Your task to perform on an android device: turn pop-ups off in chrome Image 0: 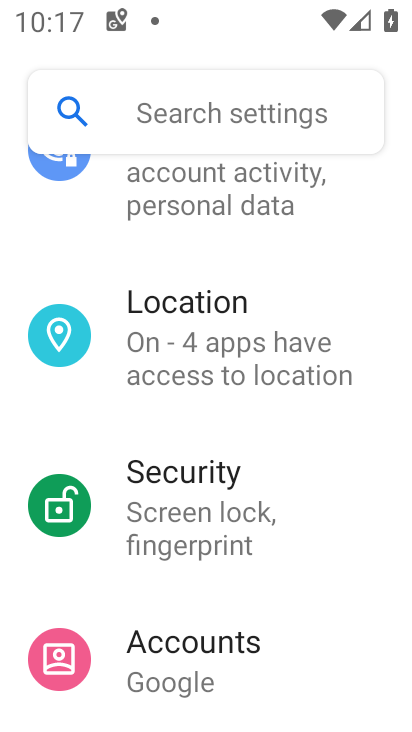
Step 0: drag from (225, 691) to (264, 320)
Your task to perform on an android device: turn pop-ups off in chrome Image 1: 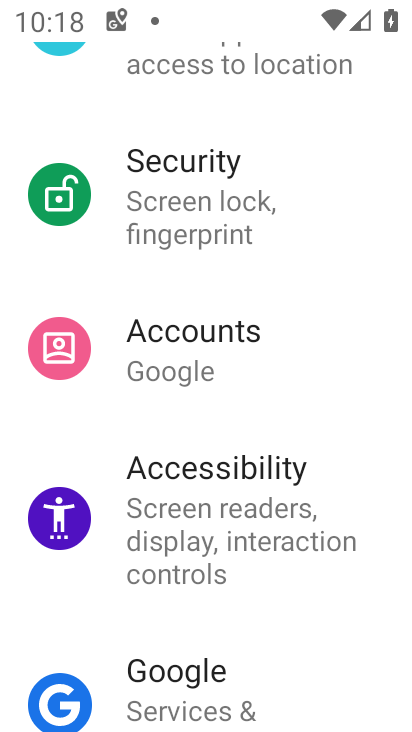
Step 1: press home button
Your task to perform on an android device: turn pop-ups off in chrome Image 2: 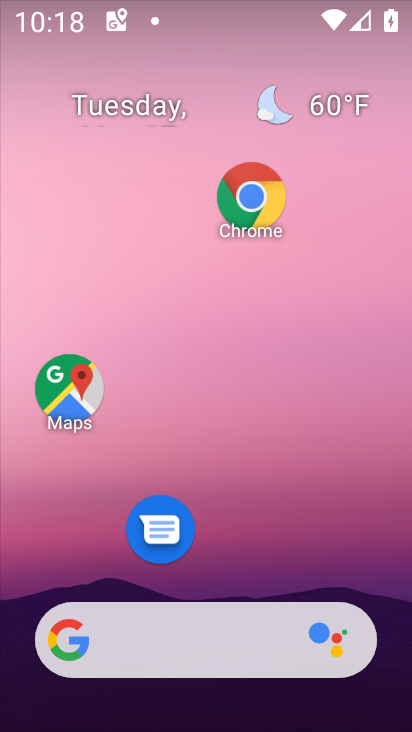
Step 2: click (265, 192)
Your task to perform on an android device: turn pop-ups off in chrome Image 3: 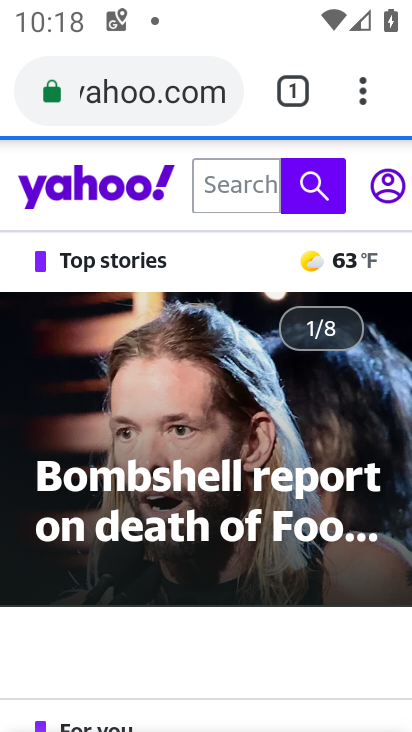
Step 3: click (356, 83)
Your task to perform on an android device: turn pop-ups off in chrome Image 4: 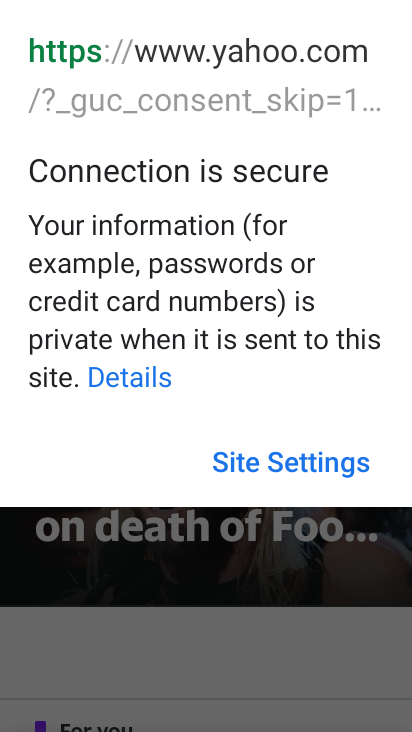
Step 4: click (262, 573)
Your task to perform on an android device: turn pop-ups off in chrome Image 5: 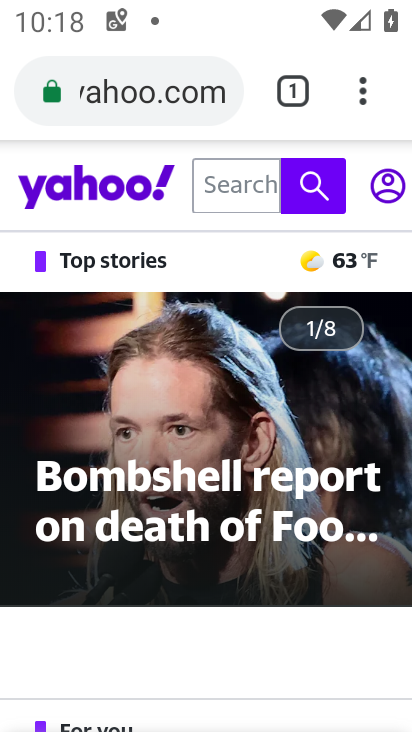
Step 5: click (289, 82)
Your task to perform on an android device: turn pop-ups off in chrome Image 6: 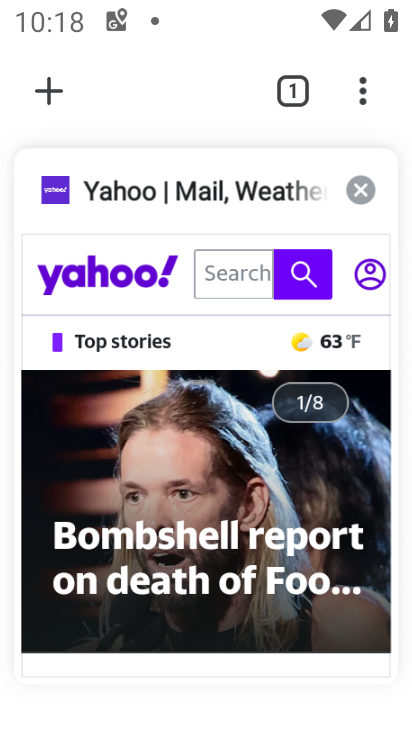
Step 6: click (288, 94)
Your task to perform on an android device: turn pop-ups off in chrome Image 7: 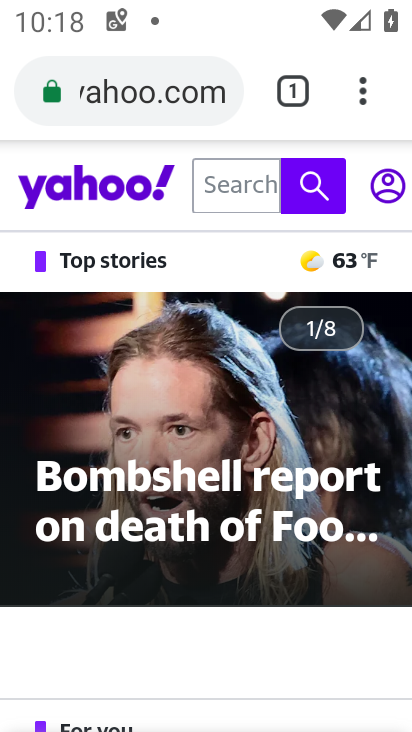
Step 7: click (293, 96)
Your task to perform on an android device: turn pop-ups off in chrome Image 8: 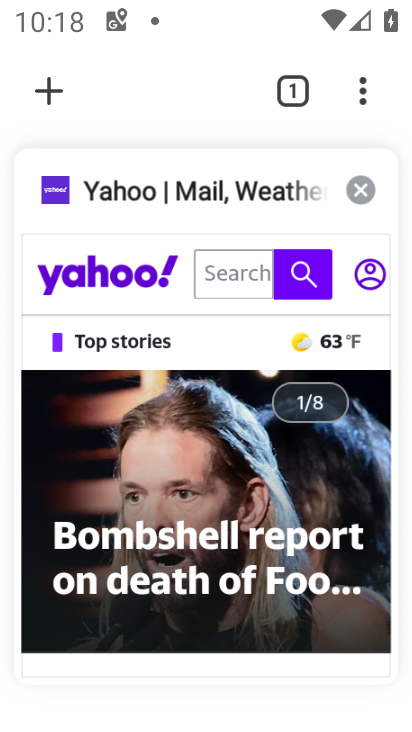
Step 8: click (359, 195)
Your task to perform on an android device: turn pop-ups off in chrome Image 9: 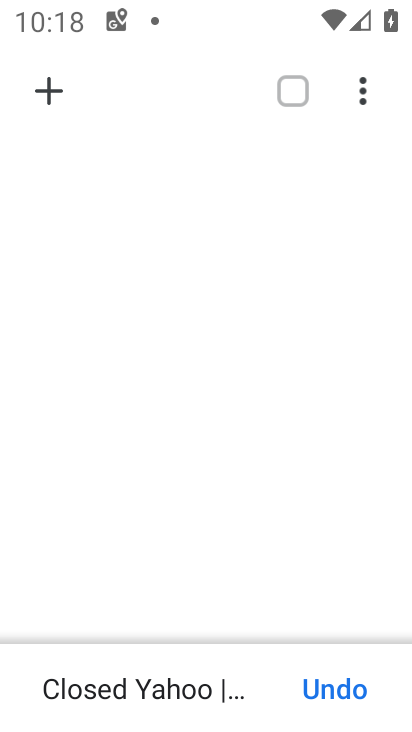
Step 9: click (47, 87)
Your task to perform on an android device: turn pop-ups off in chrome Image 10: 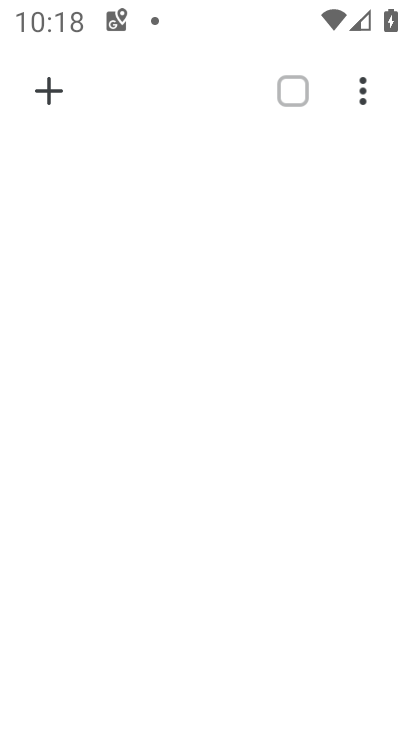
Step 10: click (48, 82)
Your task to perform on an android device: turn pop-ups off in chrome Image 11: 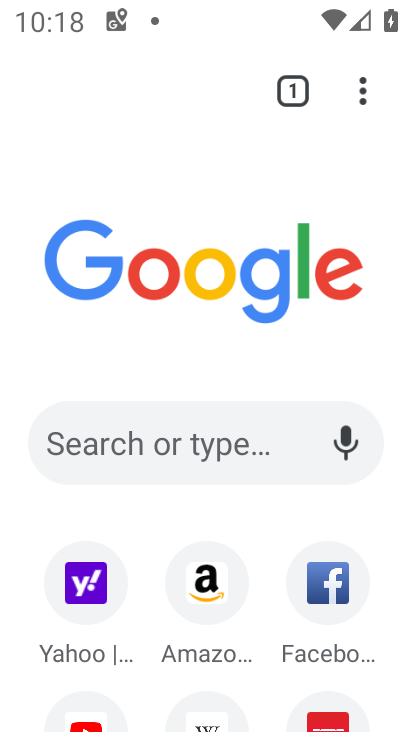
Step 11: click (369, 85)
Your task to perform on an android device: turn pop-ups off in chrome Image 12: 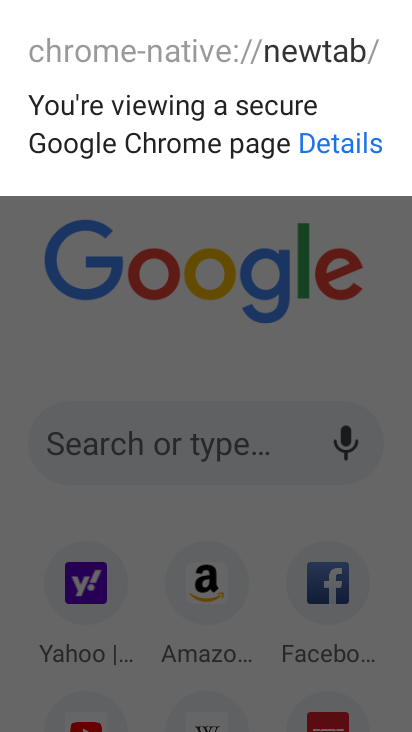
Step 12: click (226, 349)
Your task to perform on an android device: turn pop-ups off in chrome Image 13: 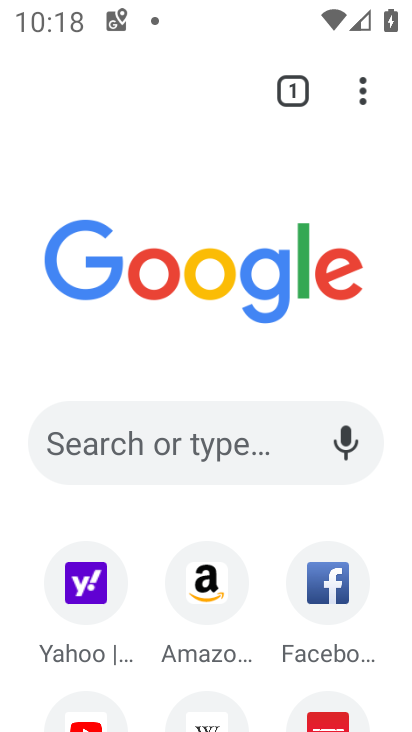
Step 13: click (363, 96)
Your task to perform on an android device: turn pop-ups off in chrome Image 14: 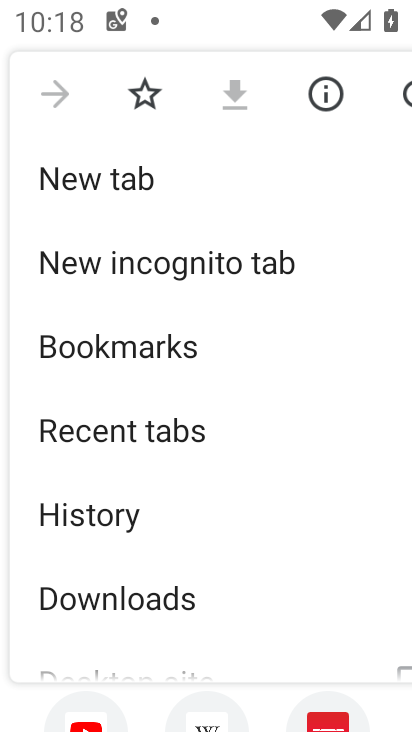
Step 14: drag from (196, 613) to (198, 256)
Your task to perform on an android device: turn pop-ups off in chrome Image 15: 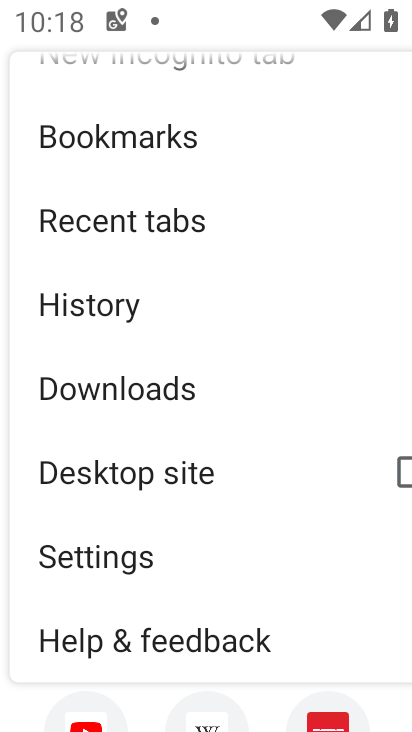
Step 15: click (108, 560)
Your task to perform on an android device: turn pop-ups off in chrome Image 16: 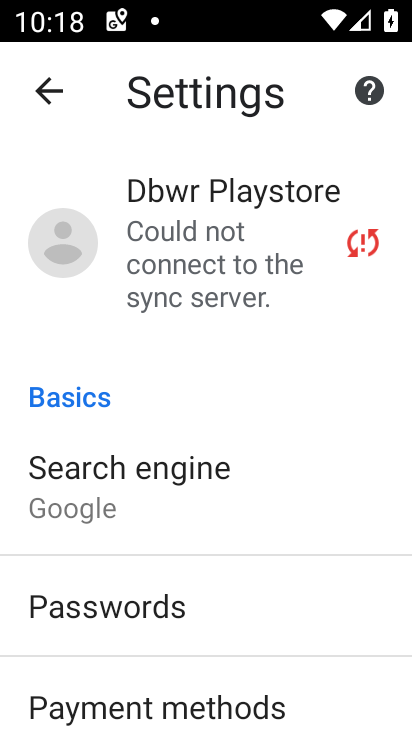
Step 16: drag from (123, 719) to (178, 268)
Your task to perform on an android device: turn pop-ups off in chrome Image 17: 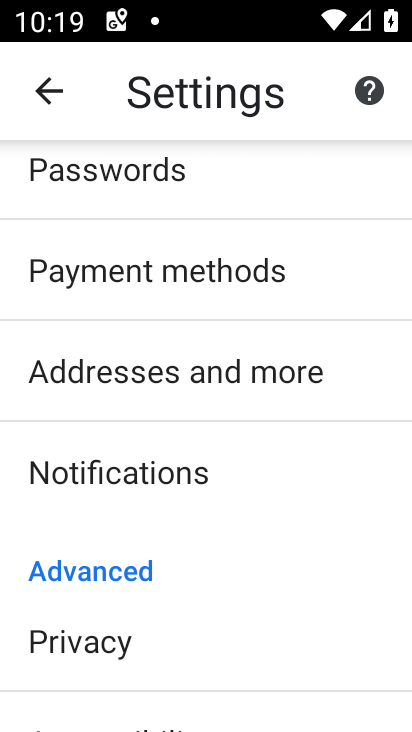
Step 17: drag from (172, 626) to (238, 184)
Your task to perform on an android device: turn pop-ups off in chrome Image 18: 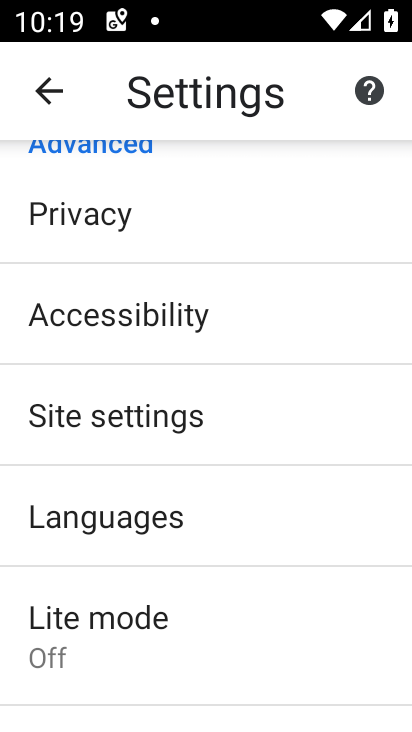
Step 18: drag from (150, 637) to (135, 247)
Your task to perform on an android device: turn pop-ups off in chrome Image 19: 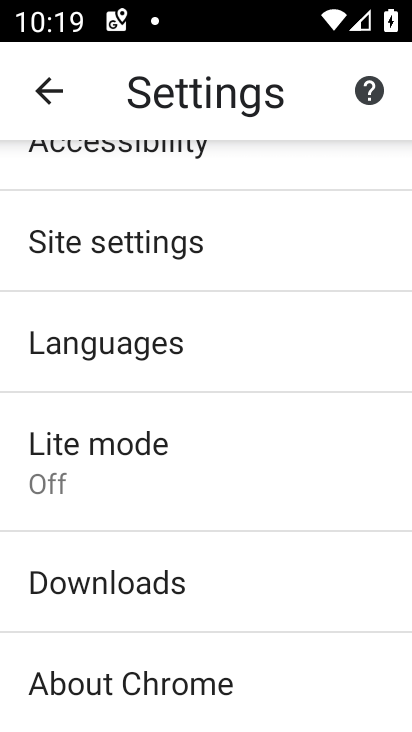
Step 19: click (94, 418)
Your task to perform on an android device: turn pop-ups off in chrome Image 20: 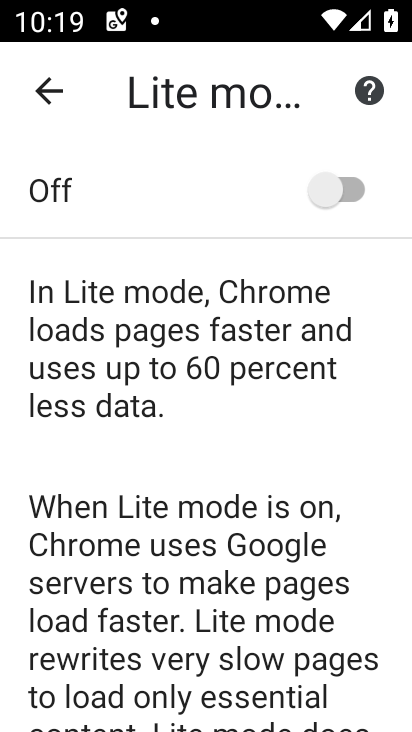
Step 20: click (45, 87)
Your task to perform on an android device: turn pop-ups off in chrome Image 21: 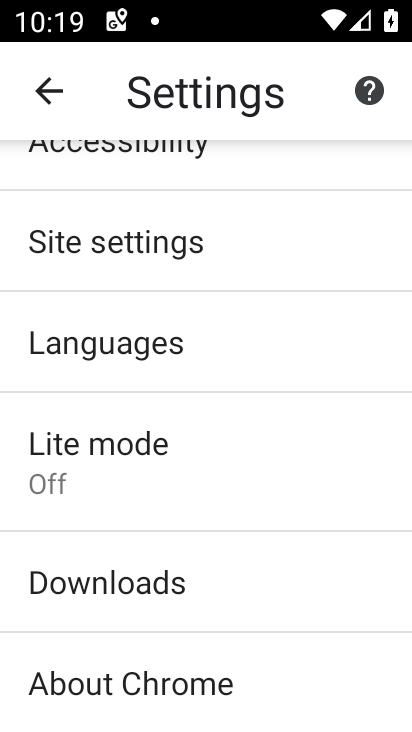
Step 21: click (130, 239)
Your task to perform on an android device: turn pop-ups off in chrome Image 22: 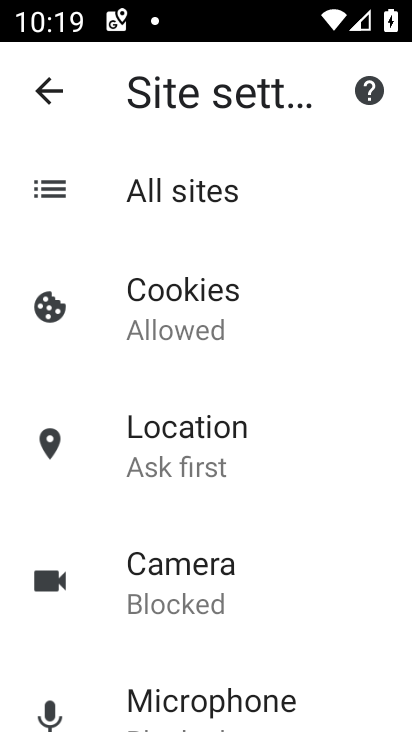
Step 22: click (279, 262)
Your task to perform on an android device: turn pop-ups off in chrome Image 23: 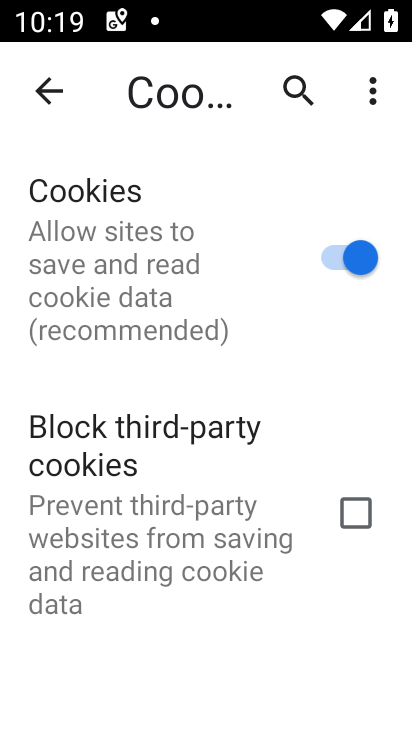
Step 23: drag from (201, 718) to (238, 307)
Your task to perform on an android device: turn pop-ups off in chrome Image 24: 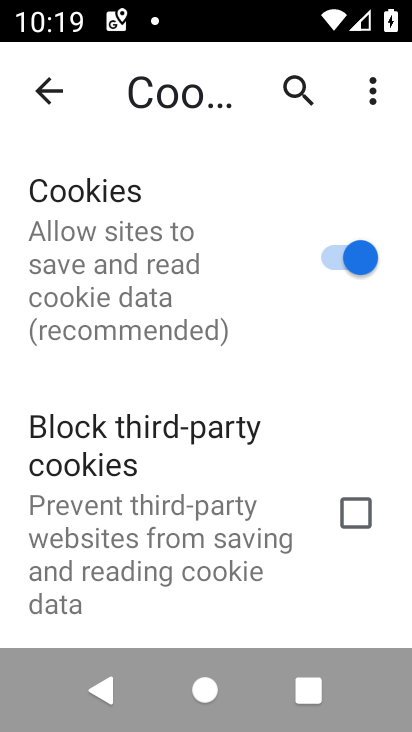
Step 24: click (38, 101)
Your task to perform on an android device: turn pop-ups off in chrome Image 25: 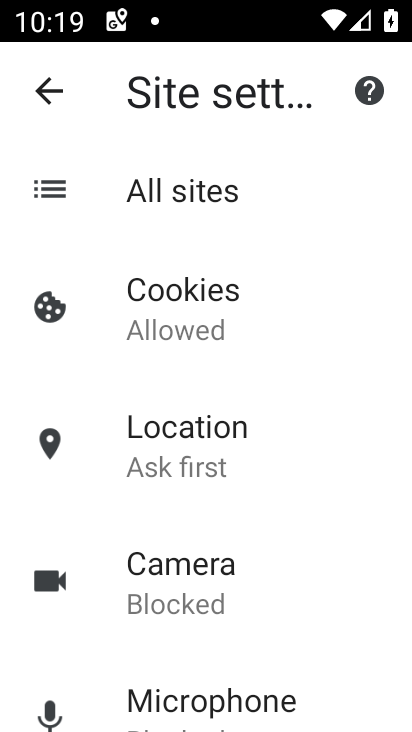
Step 25: drag from (211, 649) to (238, 200)
Your task to perform on an android device: turn pop-ups off in chrome Image 26: 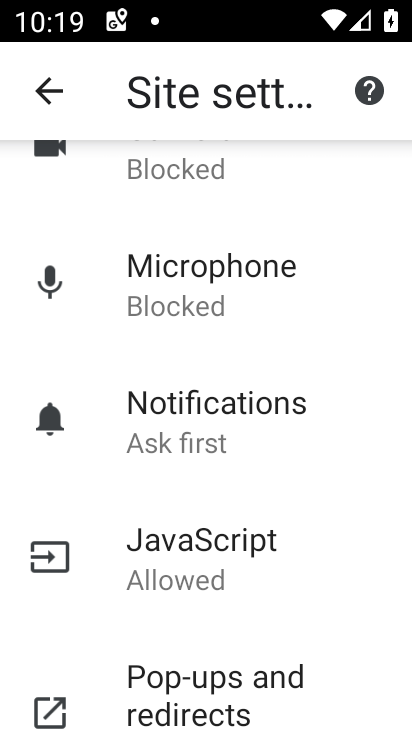
Step 26: click (219, 699)
Your task to perform on an android device: turn pop-ups off in chrome Image 27: 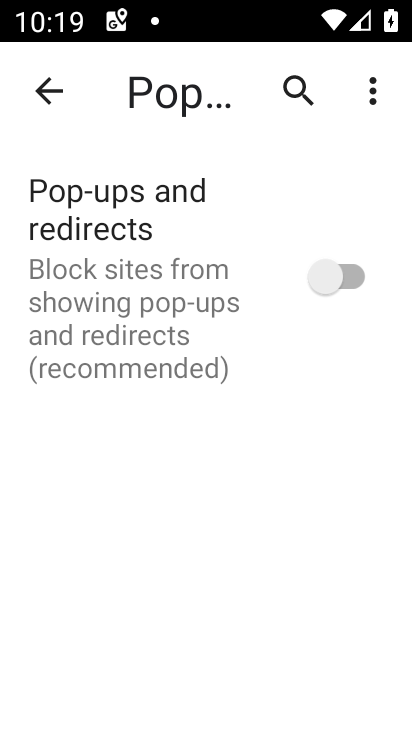
Step 27: task complete